Your task to perform on an android device: Go to sound settings Image 0: 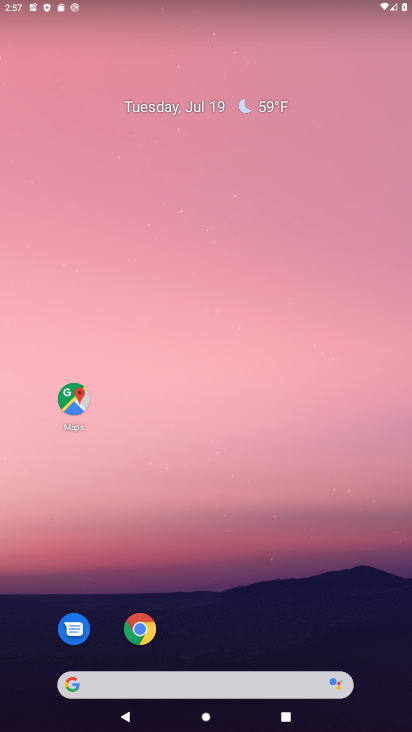
Step 0: drag from (195, 649) to (236, 86)
Your task to perform on an android device: Go to sound settings Image 1: 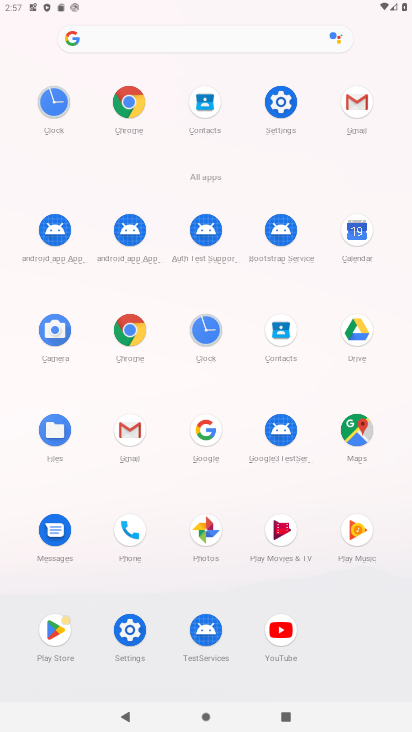
Step 1: click (281, 117)
Your task to perform on an android device: Go to sound settings Image 2: 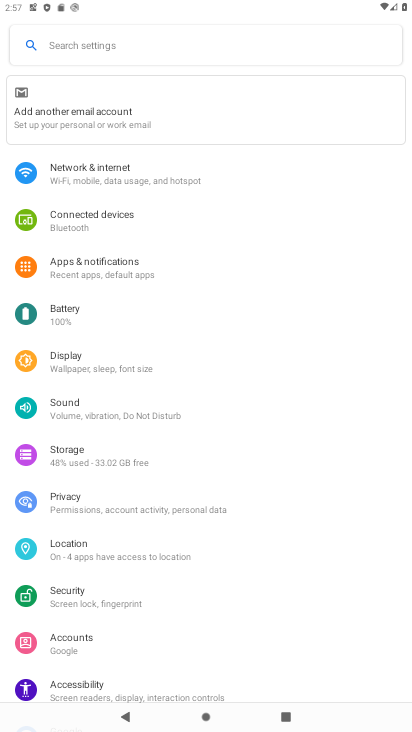
Step 2: click (77, 404)
Your task to perform on an android device: Go to sound settings Image 3: 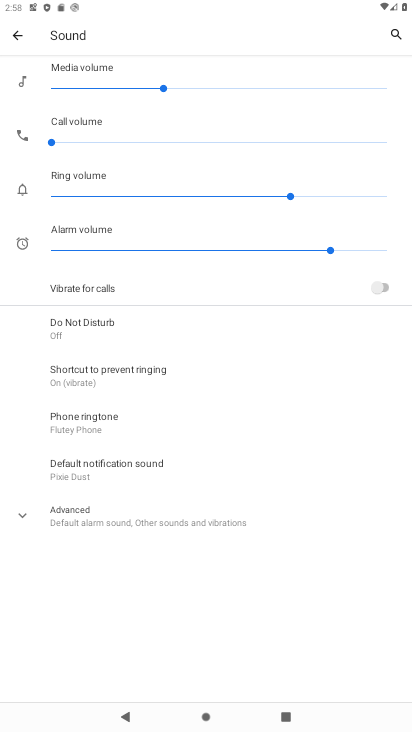
Step 3: task complete